Your task to perform on an android device: Search for seafood restaurants on Google Maps Image 0: 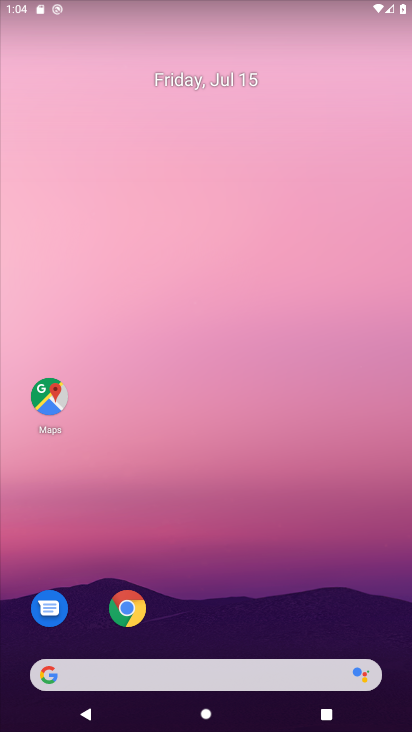
Step 0: drag from (230, 590) to (313, 196)
Your task to perform on an android device: Search for seafood restaurants on Google Maps Image 1: 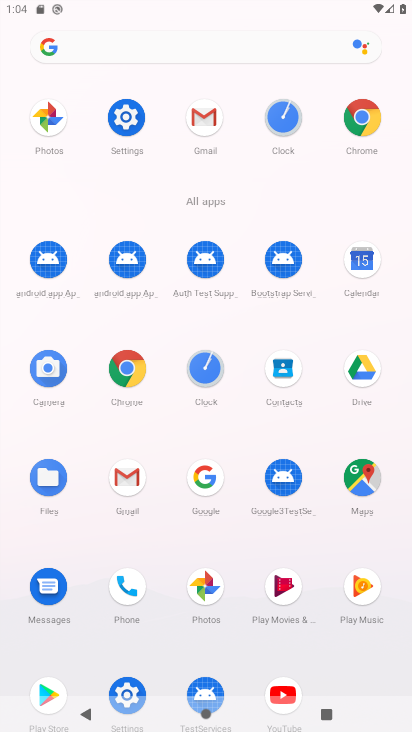
Step 1: click (358, 482)
Your task to perform on an android device: Search for seafood restaurants on Google Maps Image 2: 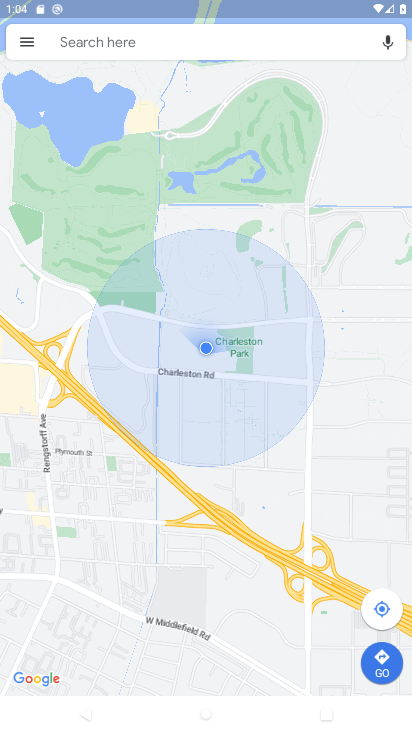
Step 2: click (136, 46)
Your task to perform on an android device: Search for seafood restaurants on Google Maps Image 3: 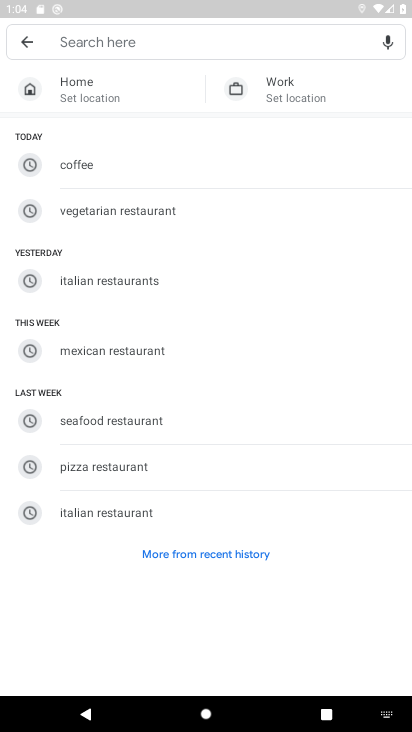
Step 3: type "seafood restaurants"
Your task to perform on an android device: Search for seafood restaurants on Google Maps Image 4: 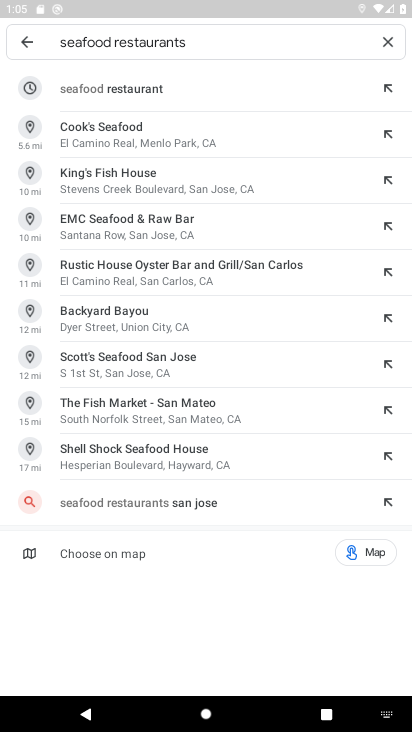
Step 4: click (170, 85)
Your task to perform on an android device: Search for seafood restaurants on Google Maps Image 5: 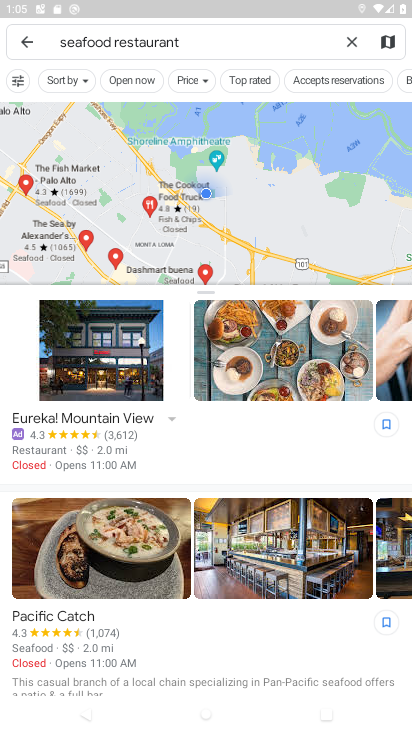
Step 5: task complete